Your task to perform on an android device: create a new album in the google photos Image 0: 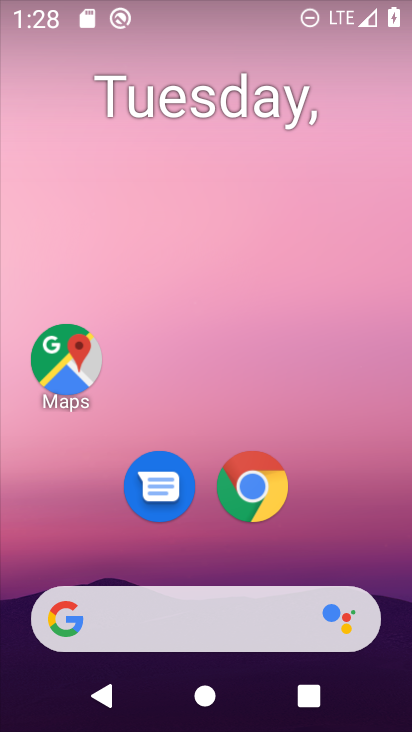
Step 0: drag from (214, 576) to (294, 46)
Your task to perform on an android device: create a new album in the google photos Image 1: 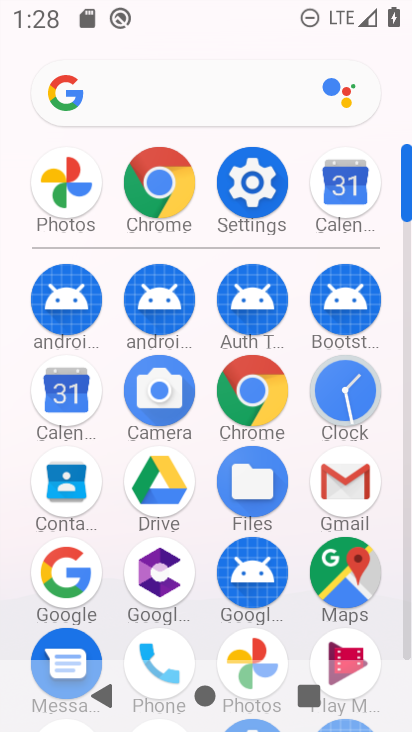
Step 1: drag from (212, 257) to (211, 21)
Your task to perform on an android device: create a new album in the google photos Image 2: 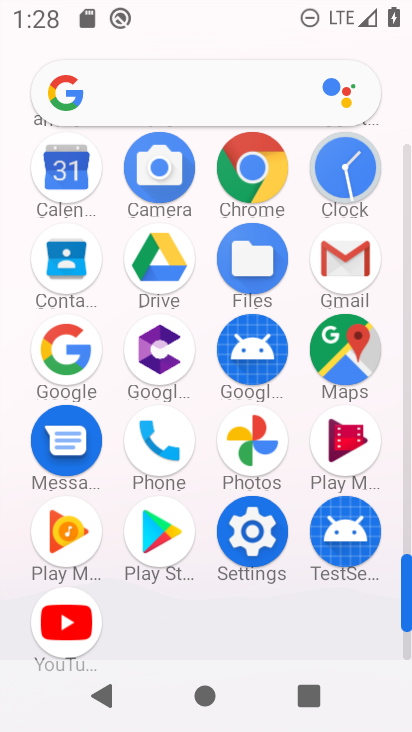
Step 2: click (264, 461)
Your task to perform on an android device: create a new album in the google photos Image 3: 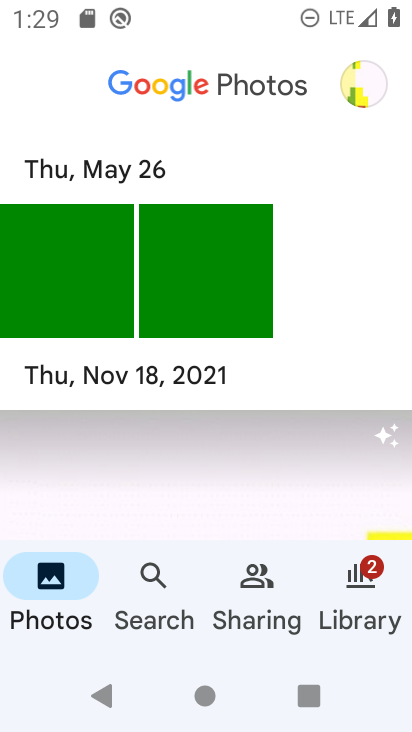
Step 3: click (341, 590)
Your task to perform on an android device: create a new album in the google photos Image 4: 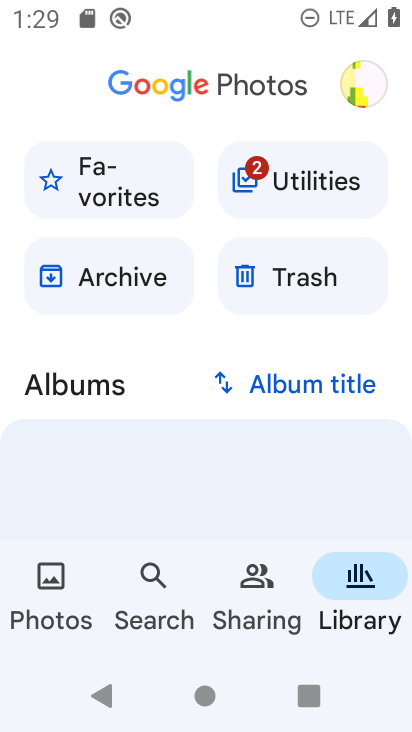
Step 4: drag from (194, 457) to (213, 125)
Your task to perform on an android device: create a new album in the google photos Image 5: 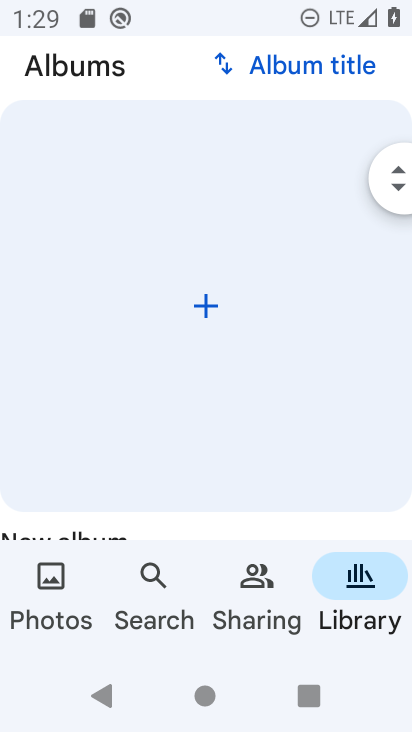
Step 5: click (197, 317)
Your task to perform on an android device: create a new album in the google photos Image 6: 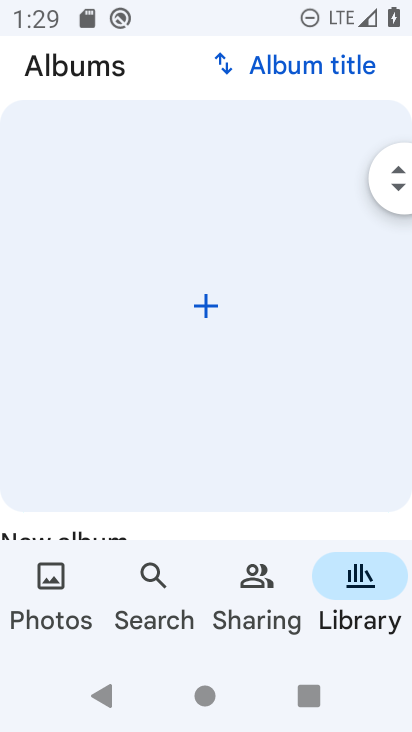
Step 6: drag from (194, 448) to (239, 171)
Your task to perform on an android device: create a new album in the google photos Image 7: 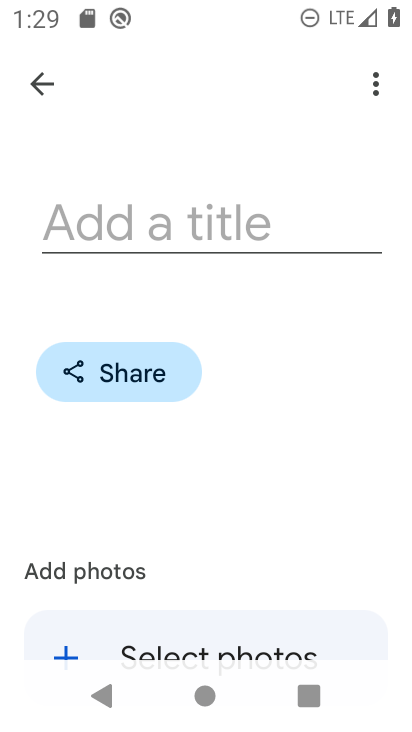
Step 7: click (123, 234)
Your task to perform on an android device: create a new album in the google photos Image 8: 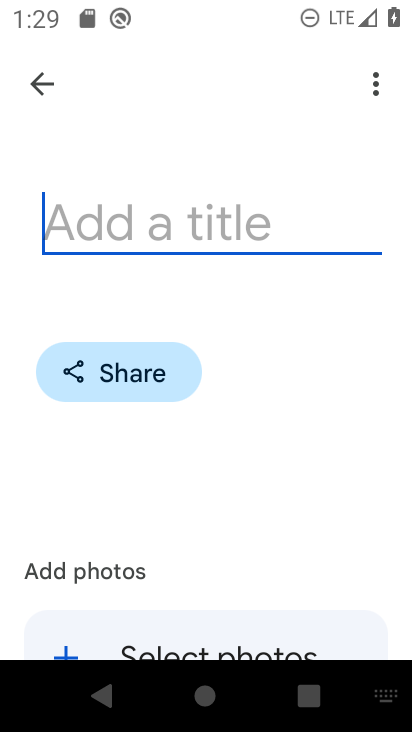
Step 8: type "jtdhgfgc"
Your task to perform on an android device: create a new album in the google photos Image 9: 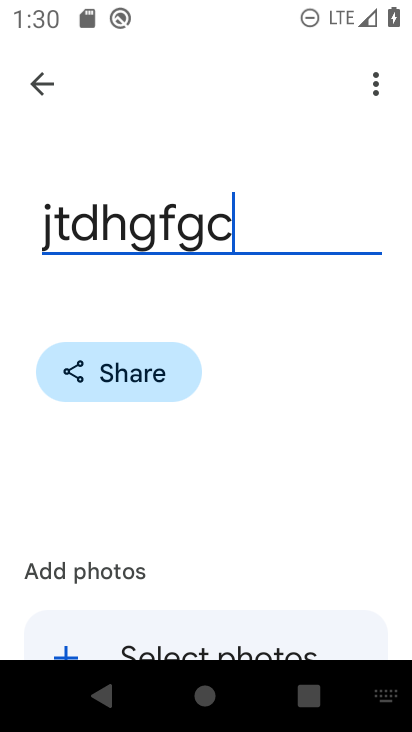
Step 9: type ""
Your task to perform on an android device: create a new album in the google photos Image 10: 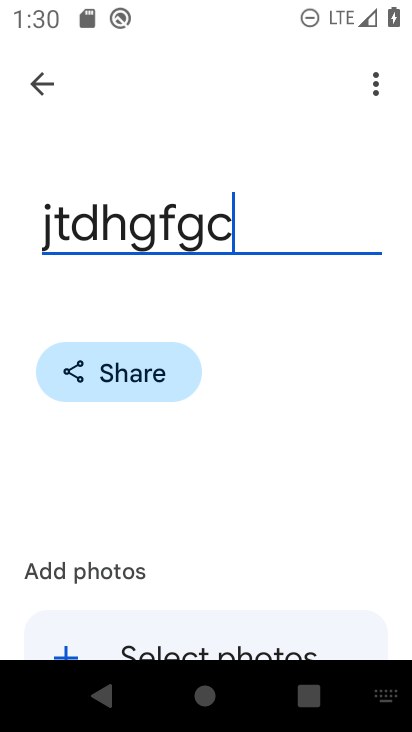
Step 10: drag from (171, 575) to (245, 119)
Your task to perform on an android device: create a new album in the google photos Image 11: 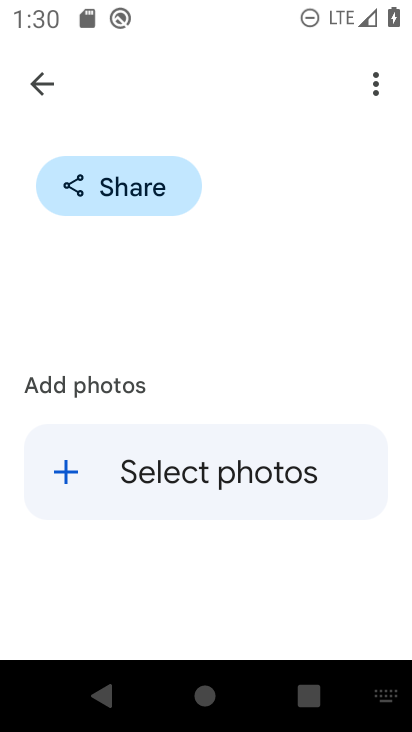
Step 11: click (176, 456)
Your task to perform on an android device: create a new album in the google photos Image 12: 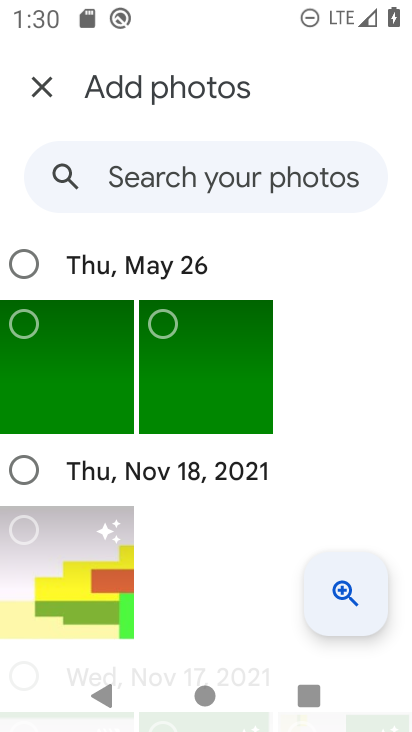
Step 12: click (82, 394)
Your task to perform on an android device: create a new album in the google photos Image 13: 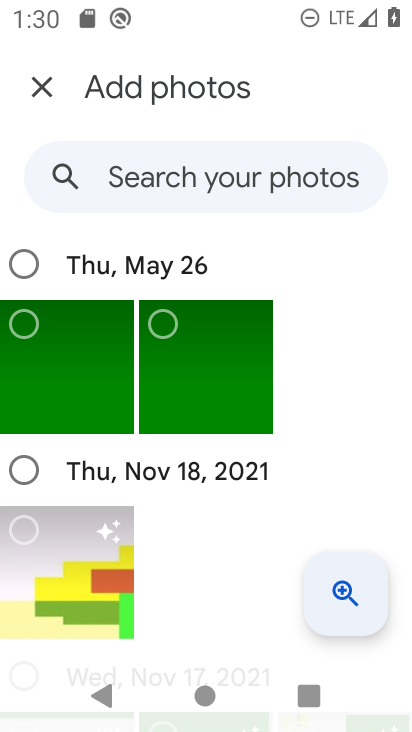
Step 13: click (186, 368)
Your task to perform on an android device: create a new album in the google photos Image 14: 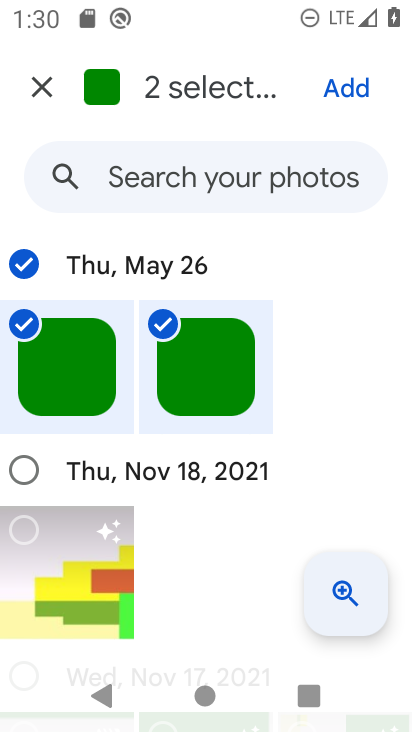
Step 14: click (345, 87)
Your task to perform on an android device: create a new album in the google photos Image 15: 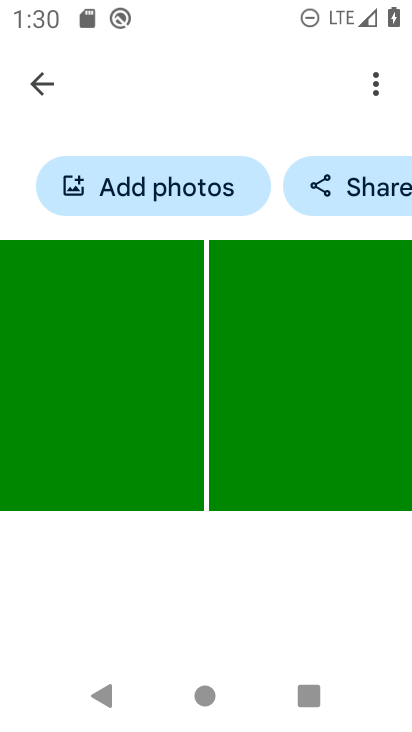
Step 15: task complete